Your task to perform on an android device: turn on sleep mode Image 0: 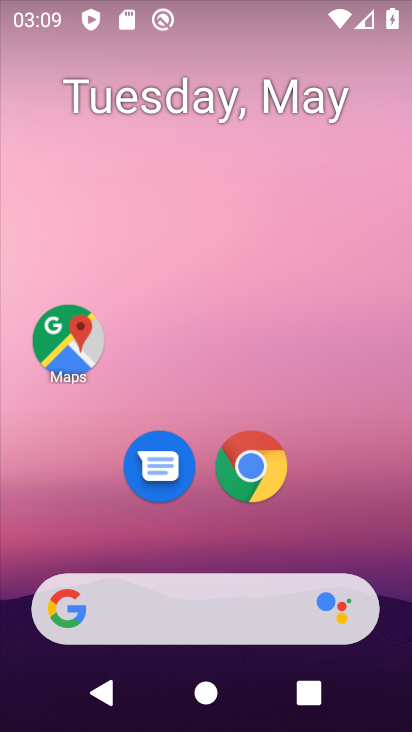
Step 0: drag from (251, 578) to (284, 147)
Your task to perform on an android device: turn on sleep mode Image 1: 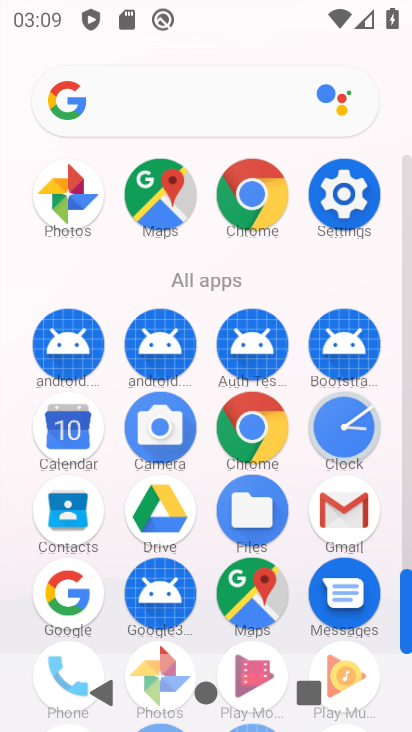
Step 1: click (358, 190)
Your task to perform on an android device: turn on sleep mode Image 2: 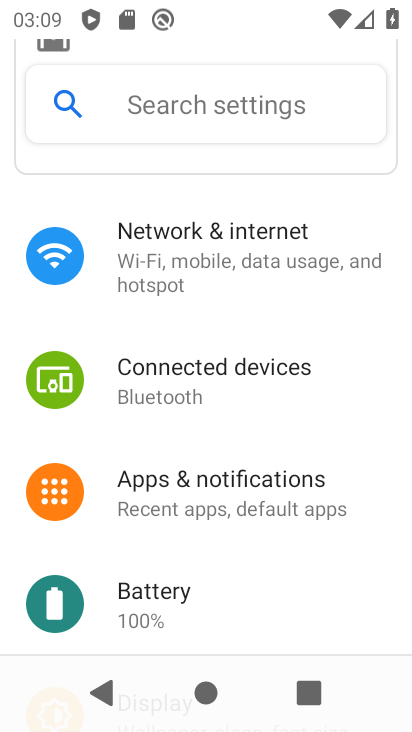
Step 2: task complete